Your task to perform on an android device: change the upload size in google photos Image 0: 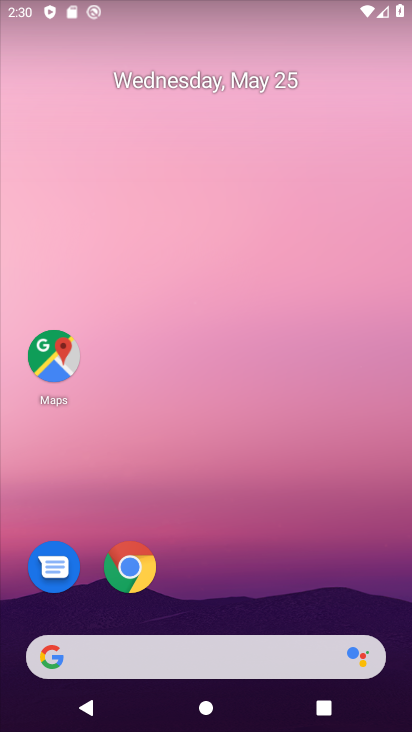
Step 0: drag from (144, 632) to (258, 95)
Your task to perform on an android device: change the upload size in google photos Image 1: 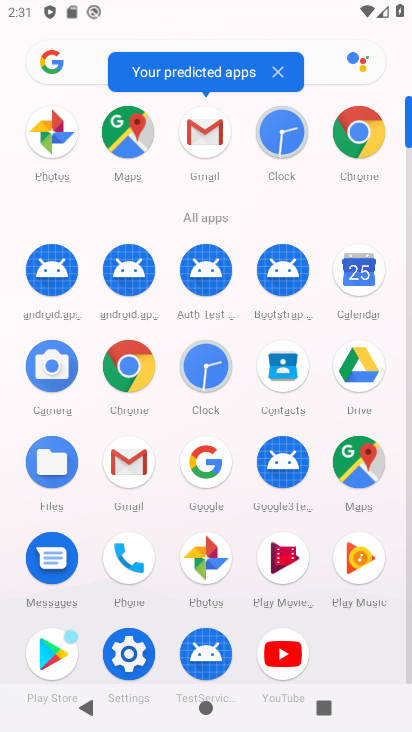
Step 1: drag from (196, 602) to (244, 338)
Your task to perform on an android device: change the upload size in google photos Image 2: 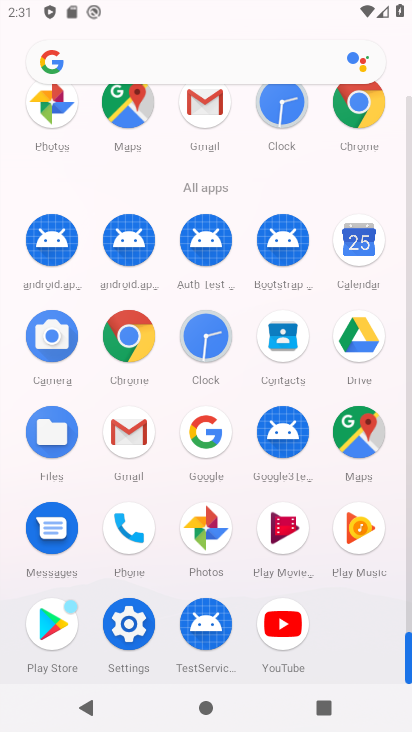
Step 2: click (134, 631)
Your task to perform on an android device: change the upload size in google photos Image 3: 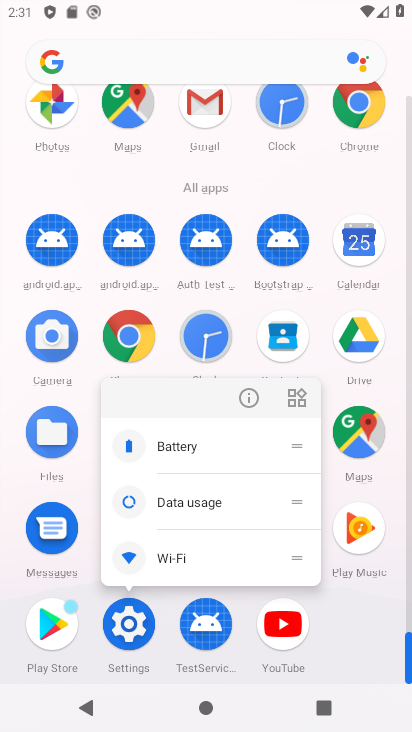
Step 3: press back button
Your task to perform on an android device: change the upload size in google photos Image 4: 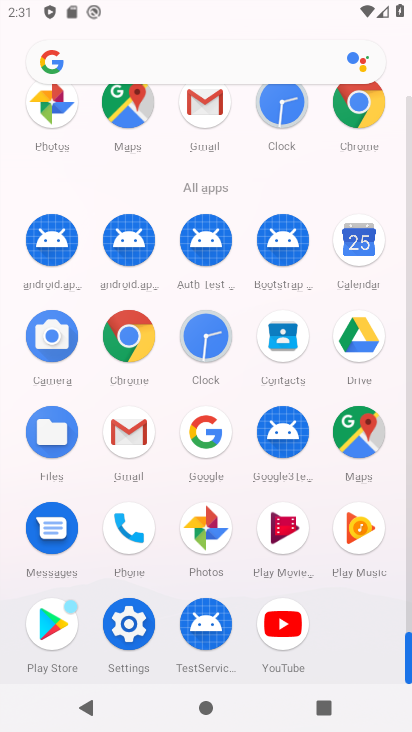
Step 4: press back button
Your task to perform on an android device: change the upload size in google photos Image 5: 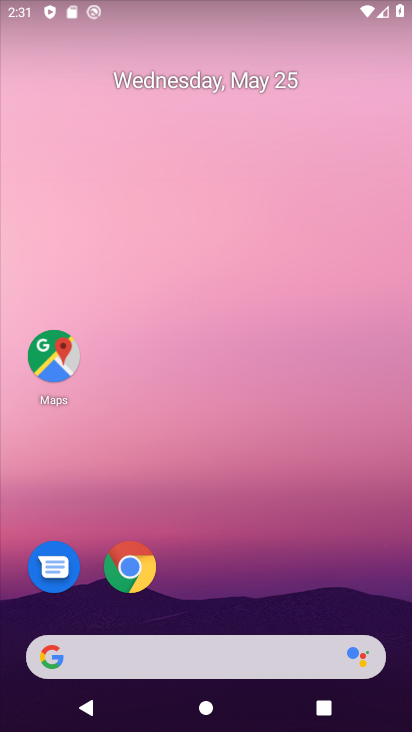
Step 5: drag from (268, 640) to (354, 114)
Your task to perform on an android device: change the upload size in google photos Image 6: 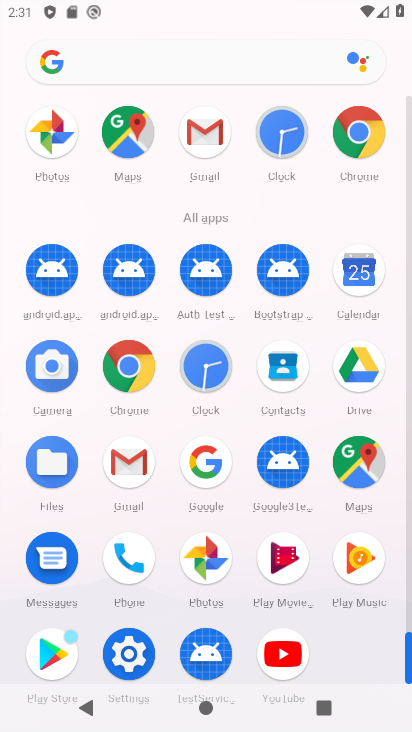
Step 6: click (223, 571)
Your task to perform on an android device: change the upload size in google photos Image 7: 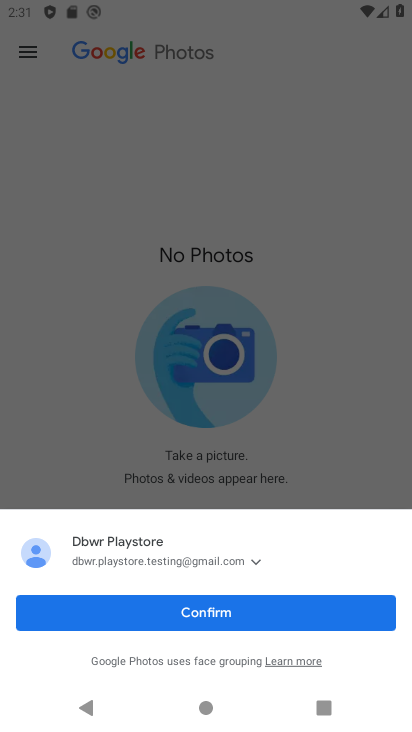
Step 7: click (36, 65)
Your task to perform on an android device: change the upload size in google photos Image 8: 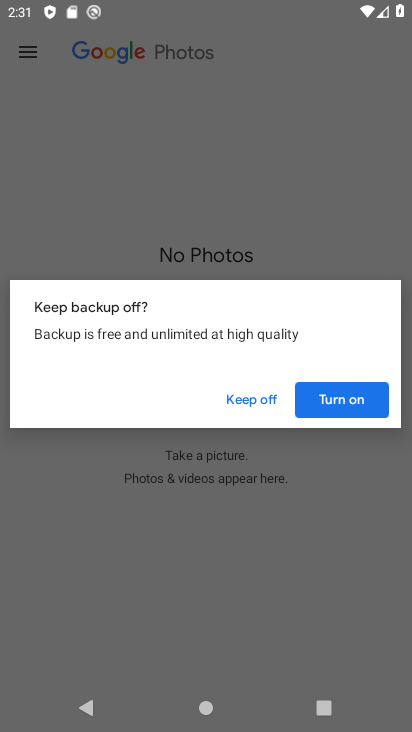
Step 8: click (36, 65)
Your task to perform on an android device: change the upload size in google photos Image 9: 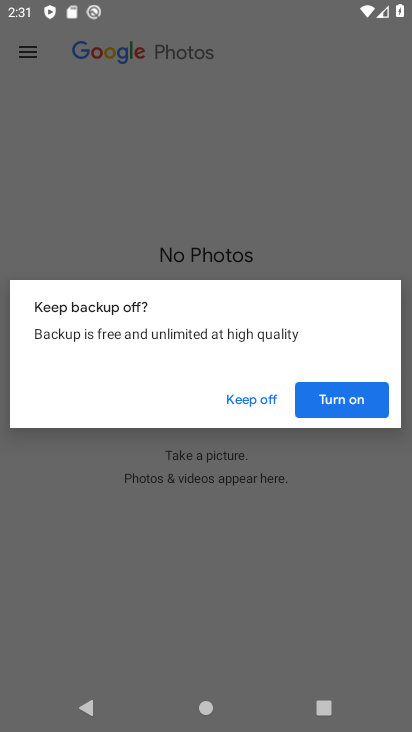
Step 9: click (355, 397)
Your task to perform on an android device: change the upload size in google photos Image 10: 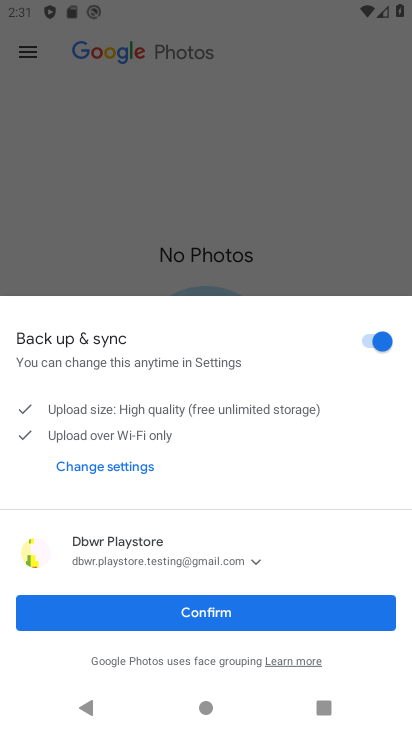
Step 10: click (270, 600)
Your task to perform on an android device: change the upload size in google photos Image 11: 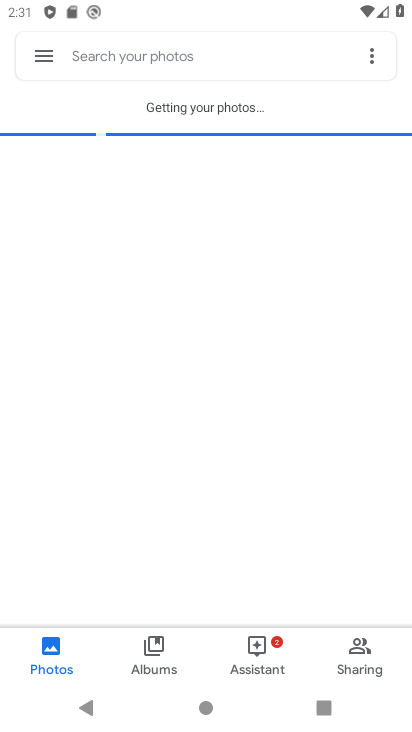
Step 11: click (62, 55)
Your task to perform on an android device: change the upload size in google photos Image 12: 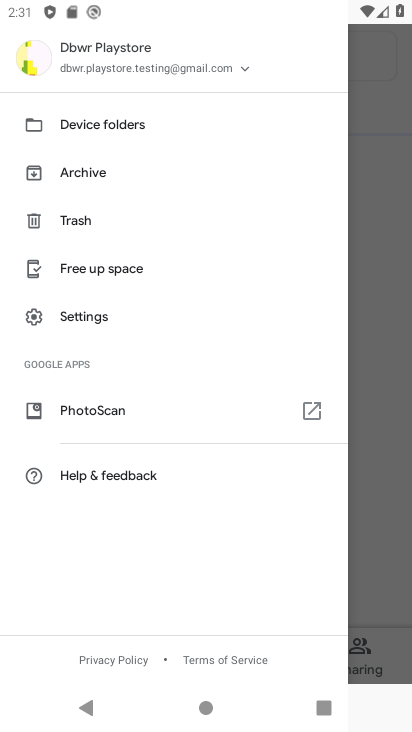
Step 12: click (121, 329)
Your task to perform on an android device: change the upload size in google photos Image 13: 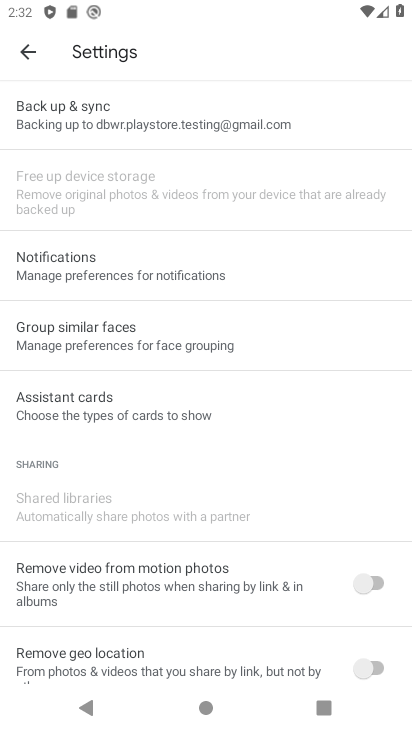
Step 13: click (214, 112)
Your task to perform on an android device: change the upload size in google photos Image 14: 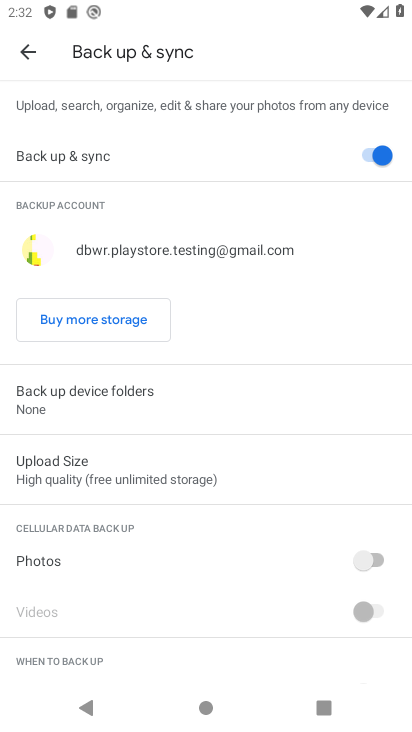
Step 14: click (141, 477)
Your task to perform on an android device: change the upload size in google photos Image 15: 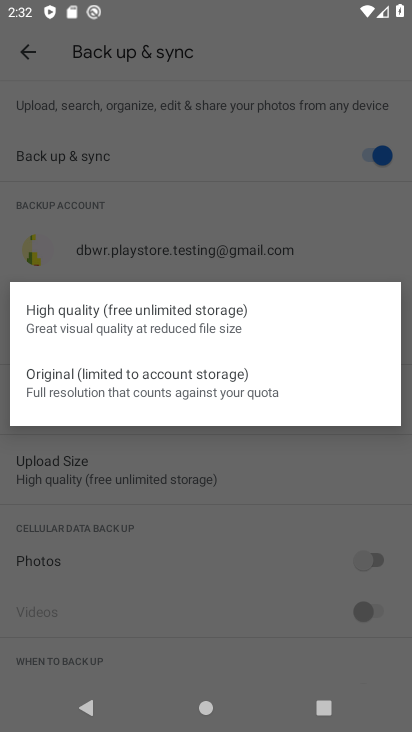
Step 15: click (170, 370)
Your task to perform on an android device: change the upload size in google photos Image 16: 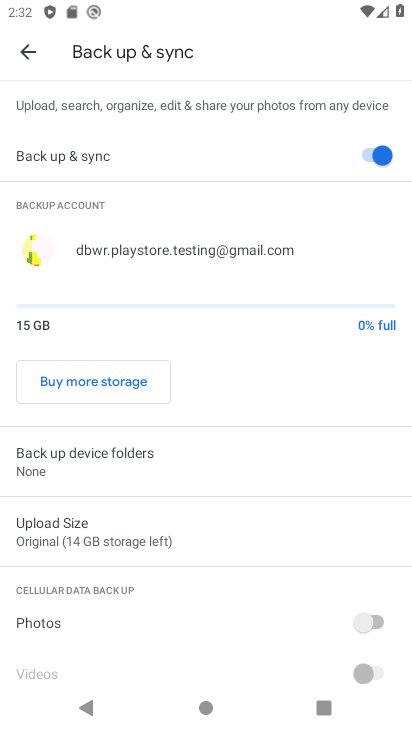
Step 16: task complete